Your task to perform on an android device: Go to notification settings Image 0: 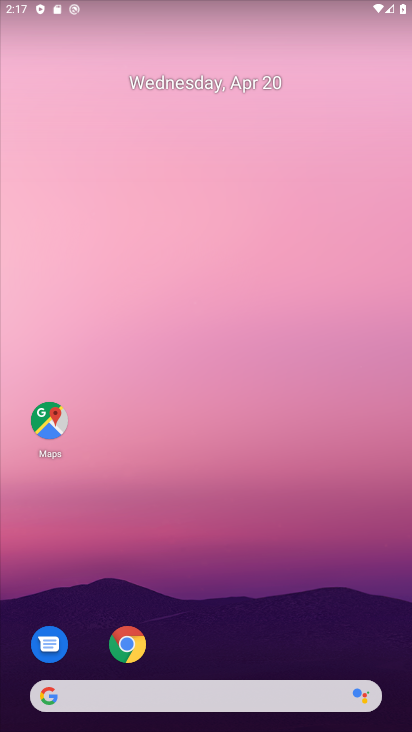
Step 0: drag from (270, 633) to (177, 132)
Your task to perform on an android device: Go to notification settings Image 1: 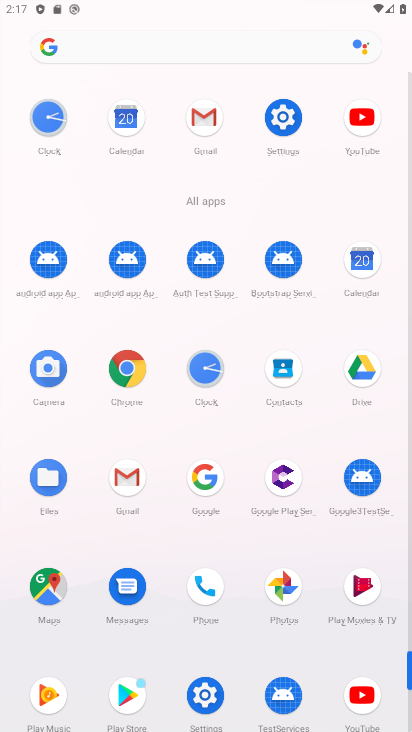
Step 1: click (203, 692)
Your task to perform on an android device: Go to notification settings Image 2: 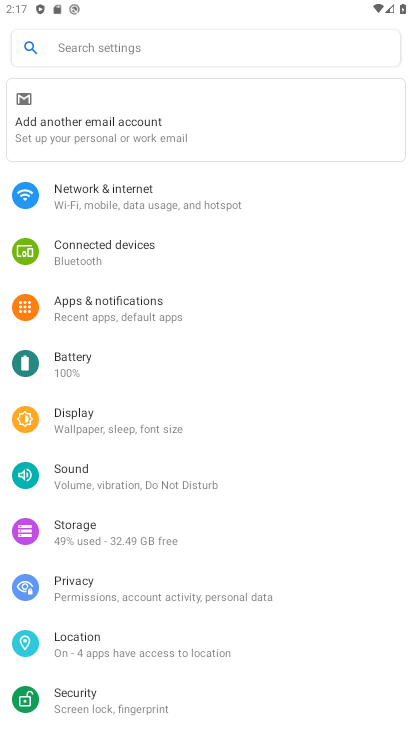
Step 2: click (112, 302)
Your task to perform on an android device: Go to notification settings Image 3: 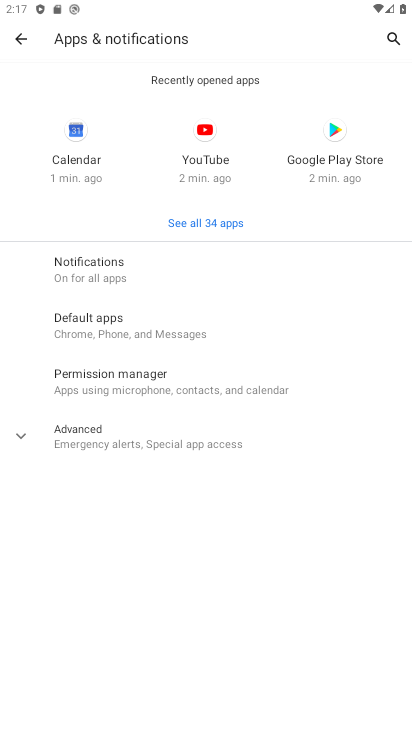
Step 3: click (119, 274)
Your task to perform on an android device: Go to notification settings Image 4: 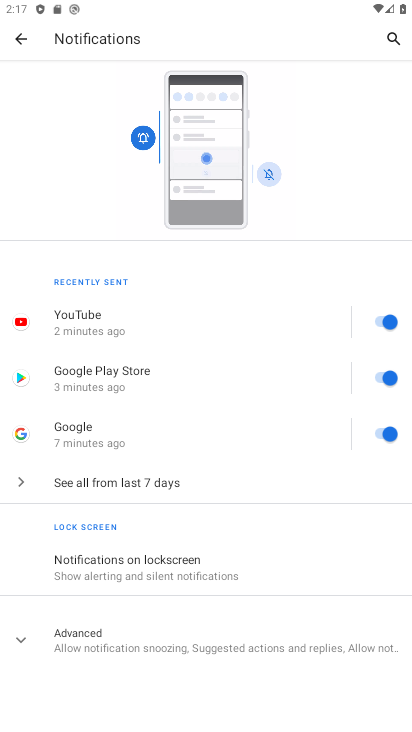
Step 4: drag from (206, 571) to (207, 343)
Your task to perform on an android device: Go to notification settings Image 5: 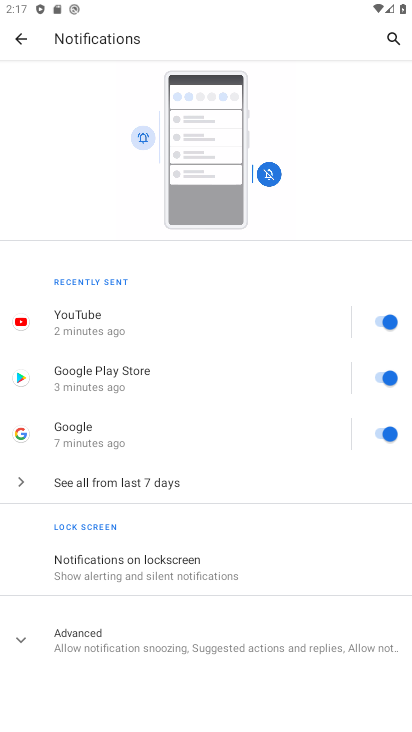
Step 5: click (23, 643)
Your task to perform on an android device: Go to notification settings Image 6: 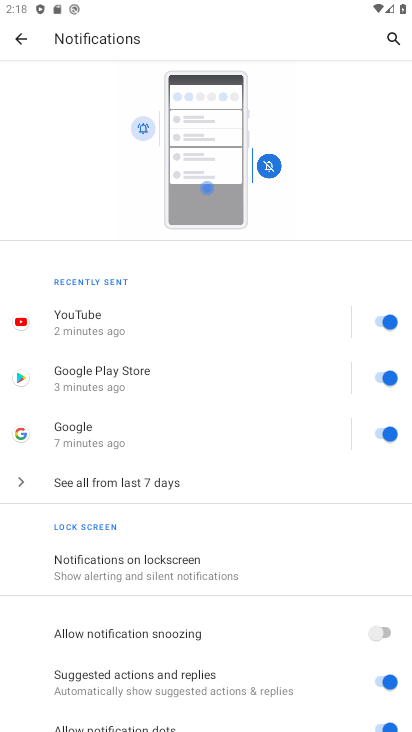
Step 6: task complete